Your task to perform on an android device: Go to ESPN.com Image 0: 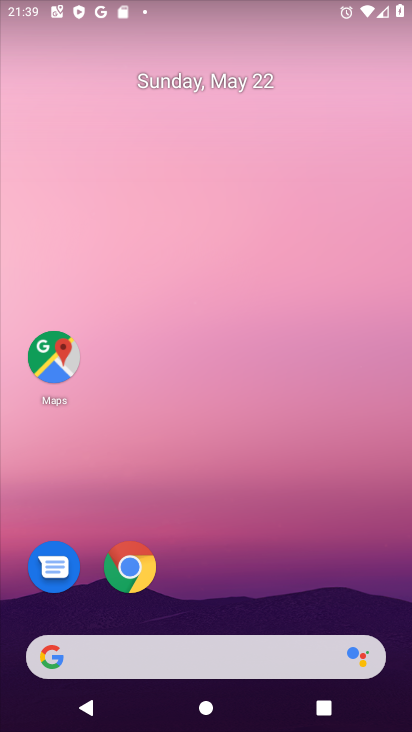
Step 0: click (142, 589)
Your task to perform on an android device: Go to ESPN.com Image 1: 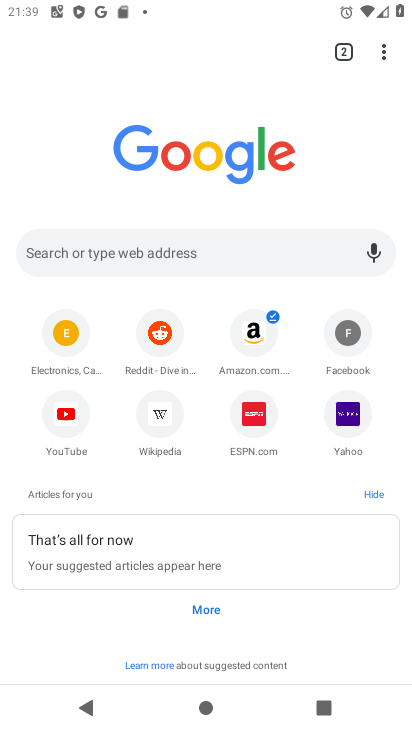
Step 1: click (273, 426)
Your task to perform on an android device: Go to ESPN.com Image 2: 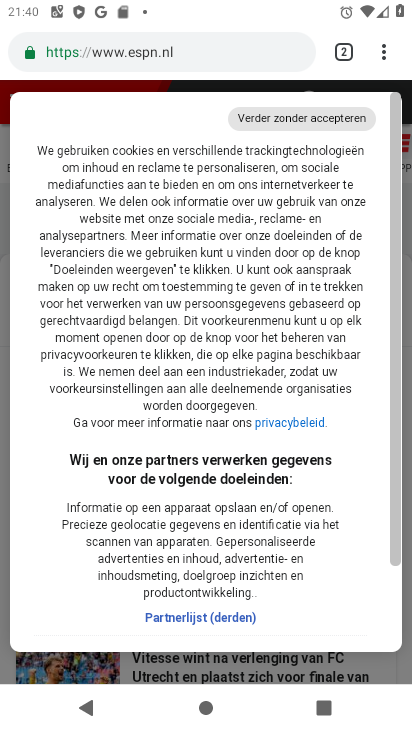
Step 2: task complete